Your task to perform on an android device: Go to Reddit.com Image 0: 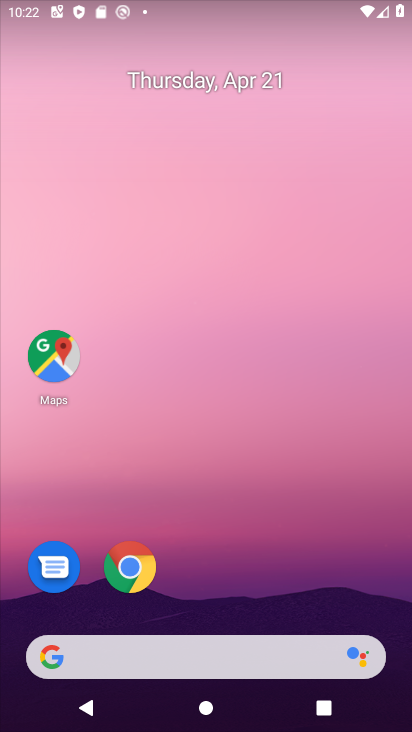
Step 0: click (226, 346)
Your task to perform on an android device: Go to Reddit.com Image 1: 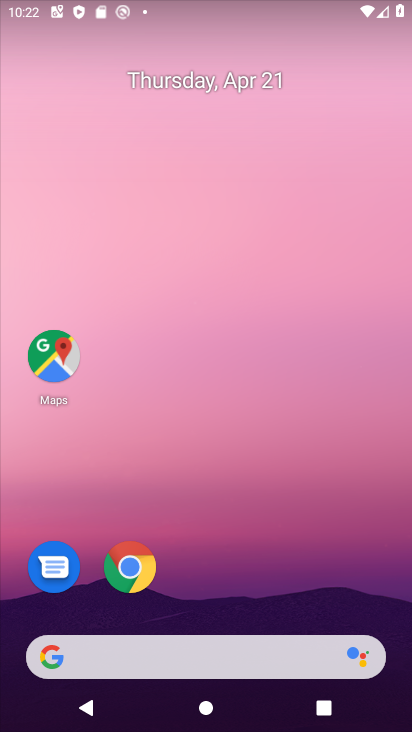
Step 1: click (80, 520)
Your task to perform on an android device: Go to Reddit.com Image 2: 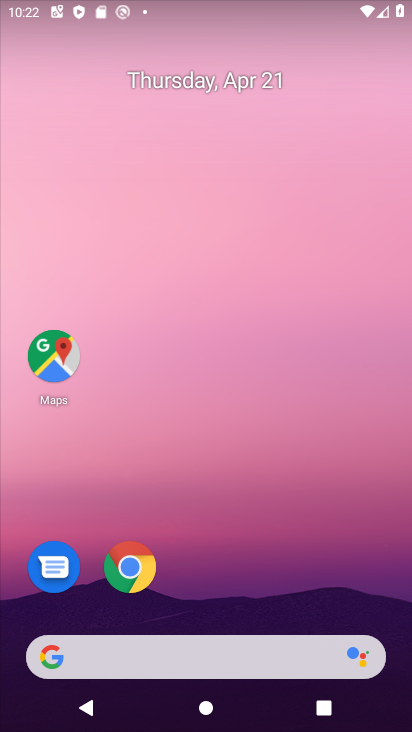
Step 2: click (130, 569)
Your task to perform on an android device: Go to Reddit.com Image 3: 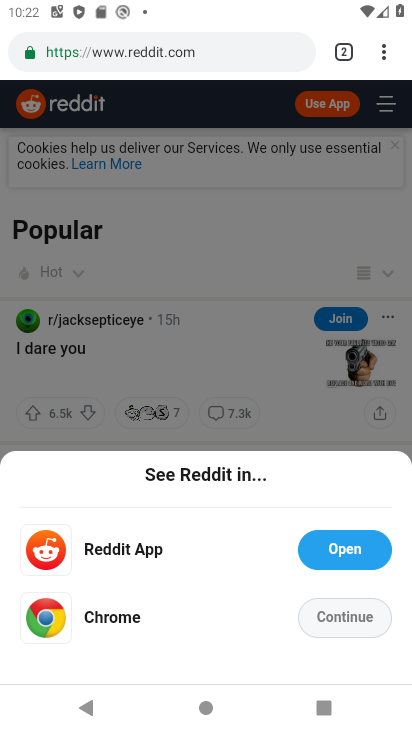
Step 3: task complete